Your task to perform on an android device: Do I have any events today? Image 0: 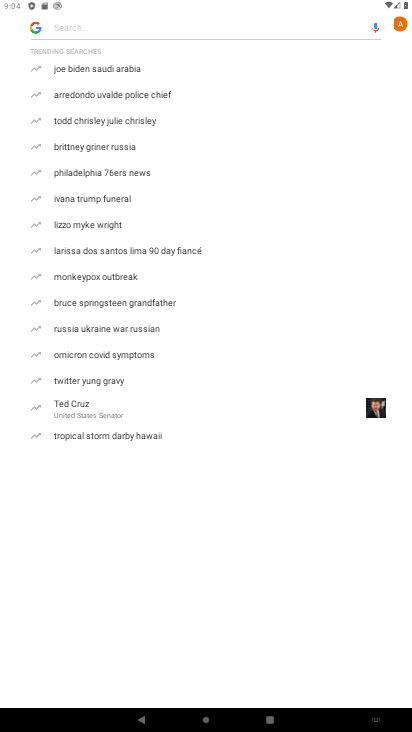
Step 0: press home button
Your task to perform on an android device: Do I have any events today? Image 1: 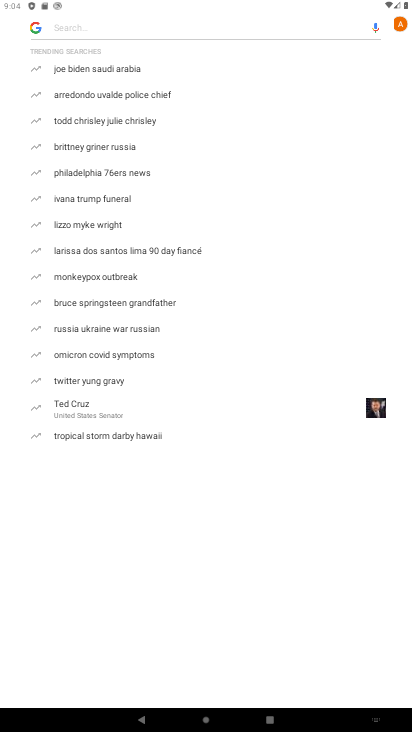
Step 1: press home button
Your task to perform on an android device: Do I have any events today? Image 2: 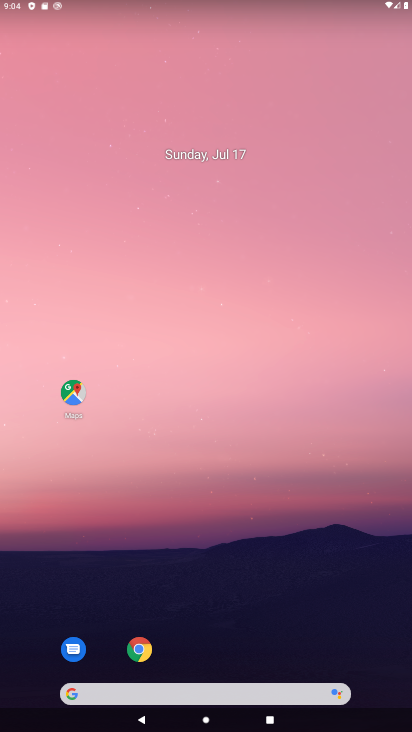
Step 2: press home button
Your task to perform on an android device: Do I have any events today? Image 3: 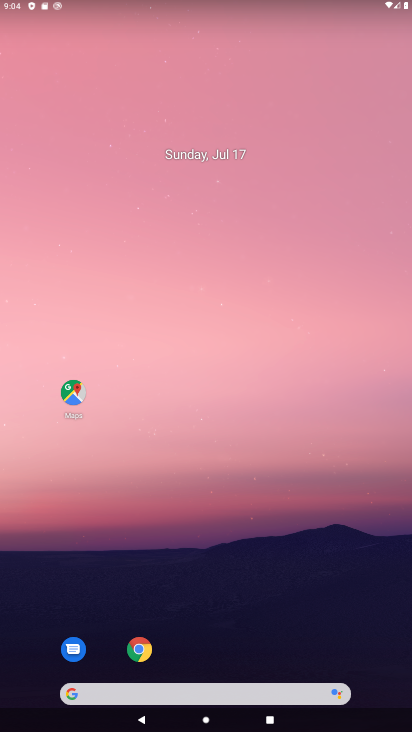
Step 3: click (179, 273)
Your task to perform on an android device: Do I have any events today? Image 4: 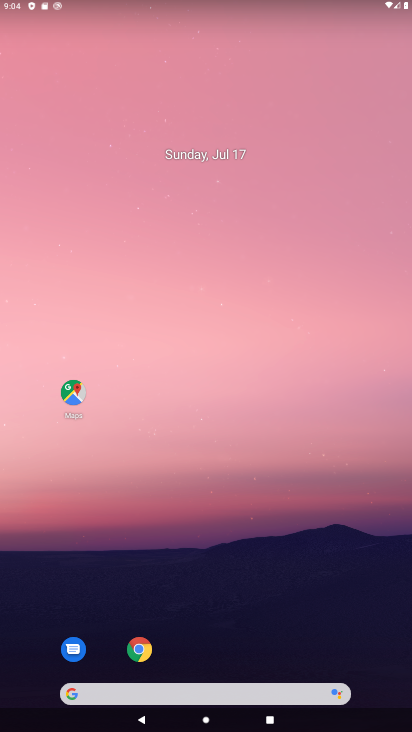
Step 4: drag from (53, 692) to (320, 24)
Your task to perform on an android device: Do I have any events today? Image 5: 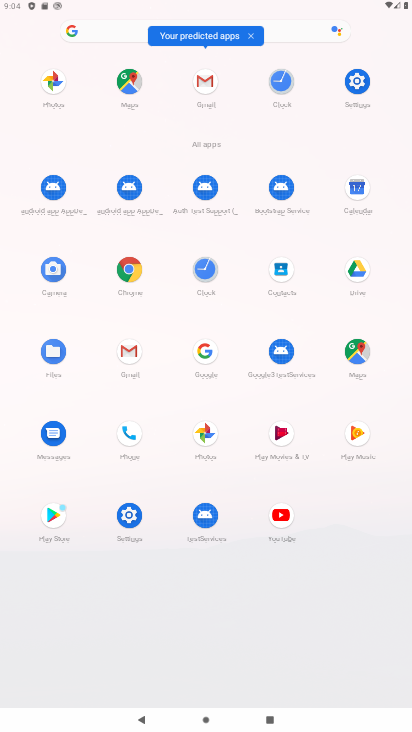
Step 5: click (364, 202)
Your task to perform on an android device: Do I have any events today? Image 6: 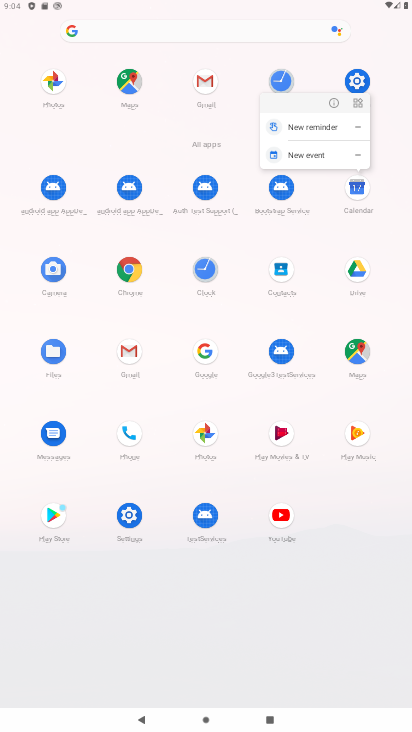
Step 6: click (351, 200)
Your task to perform on an android device: Do I have any events today? Image 7: 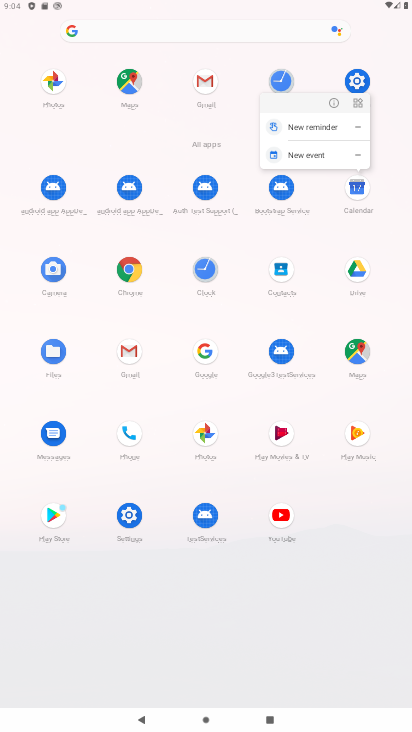
Step 7: click (354, 199)
Your task to perform on an android device: Do I have any events today? Image 8: 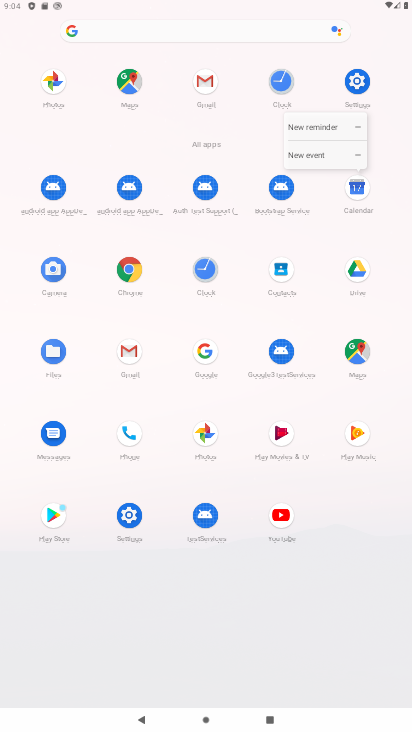
Step 8: click (354, 199)
Your task to perform on an android device: Do I have any events today? Image 9: 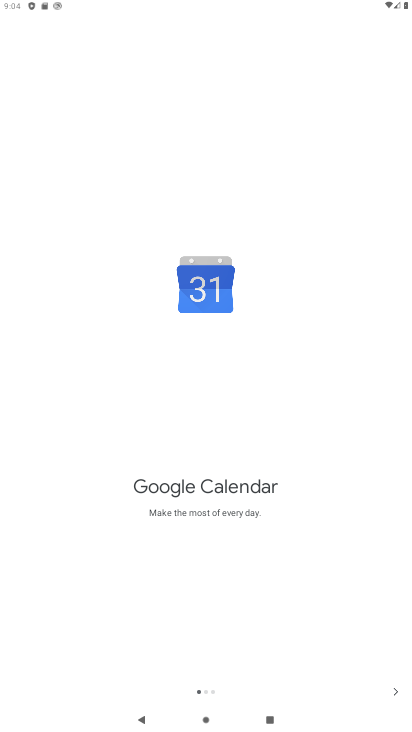
Step 9: click (399, 694)
Your task to perform on an android device: Do I have any events today? Image 10: 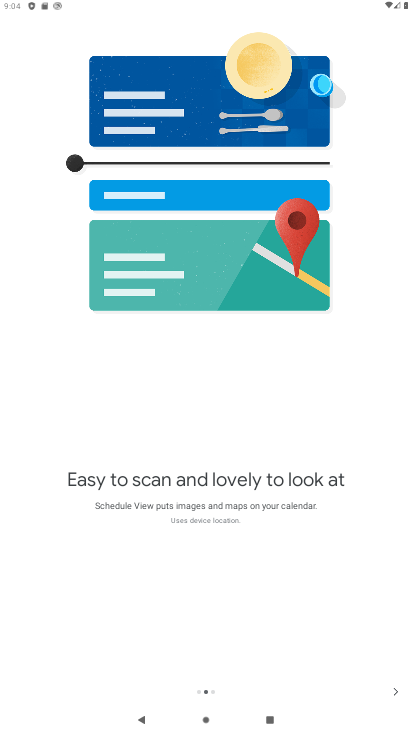
Step 10: click (394, 693)
Your task to perform on an android device: Do I have any events today? Image 11: 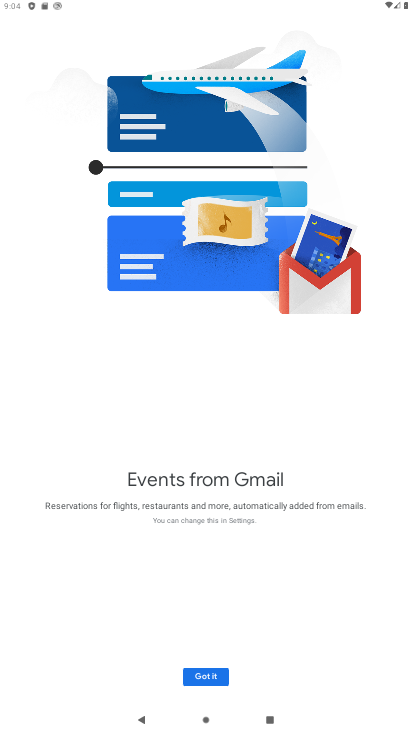
Step 11: click (394, 693)
Your task to perform on an android device: Do I have any events today? Image 12: 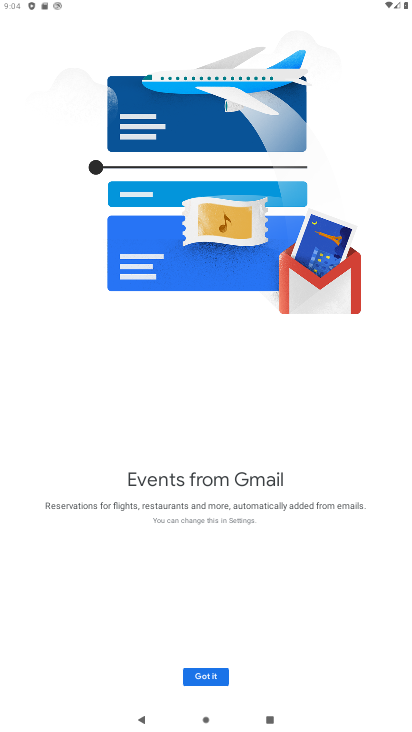
Step 12: click (214, 667)
Your task to perform on an android device: Do I have any events today? Image 13: 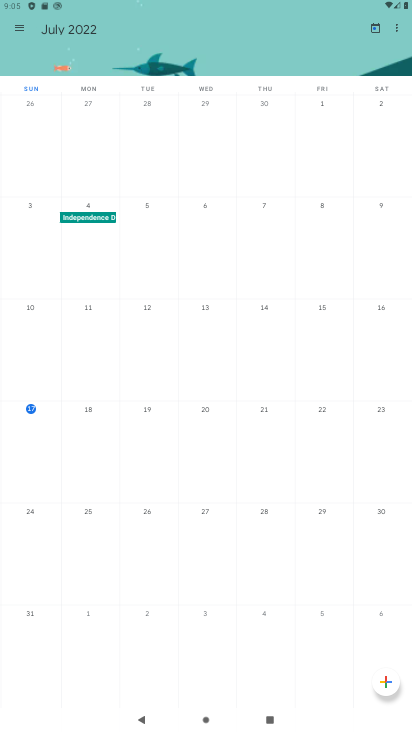
Step 13: task complete